Your task to perform on an android device: open the mobile data screen to see how much data has been used Image 0: 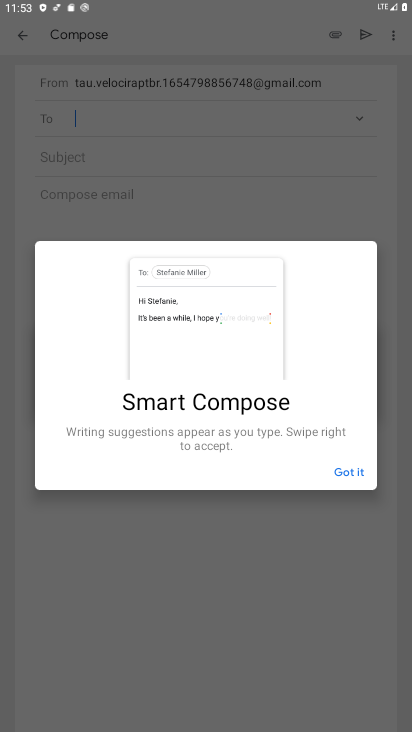
Step 0: press home button
Your task to perform on an android device: open the mobile data screen to see how much data has been used Image 1: 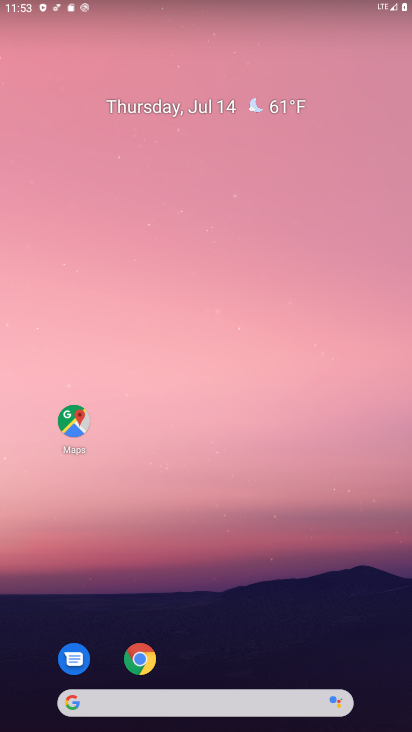
Step 1: drag from (202, 700) to (127, 103)
Your task to perform on an android device: open the mobile data screen to see how much data has been used Image 2: 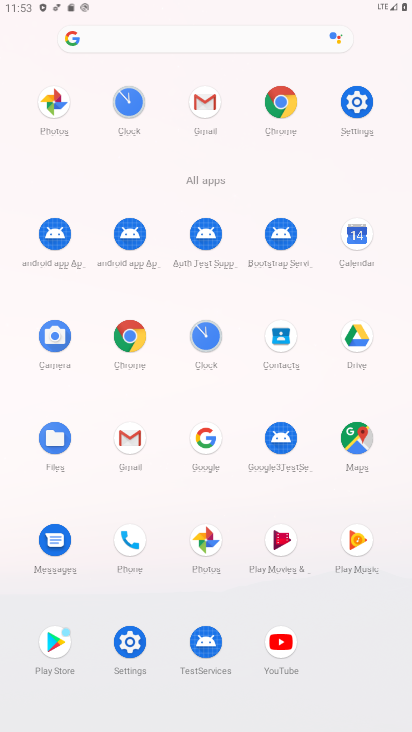
Step 2: click (359, 104)
Your task to perform on an android device: open the mobile data screen to see how much data has been used Image 3: 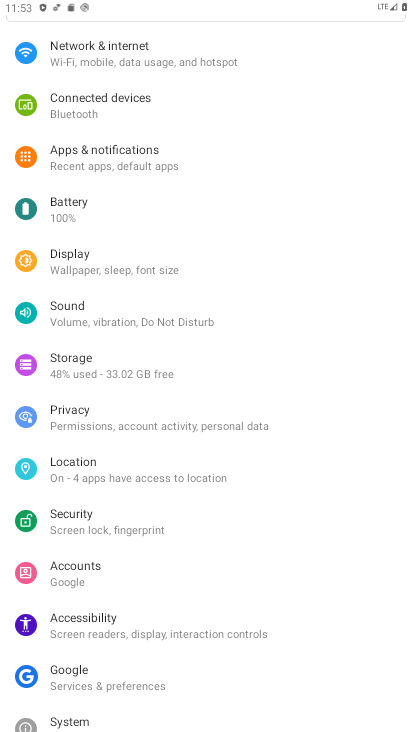
Step 3: click (145, 61)
Your task to perform on an android device: open the mobile data screen to see how much data has been used Image 4: 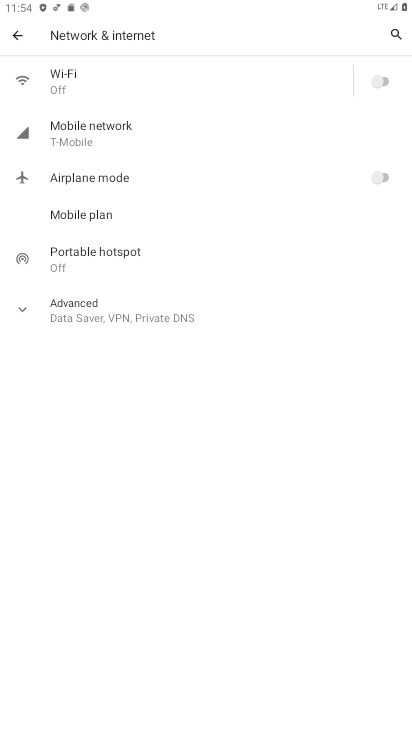
Step 4: click (117, 130)
Your task to perform on an android device: open the mobile data screen to see how much data has been used Image 5: 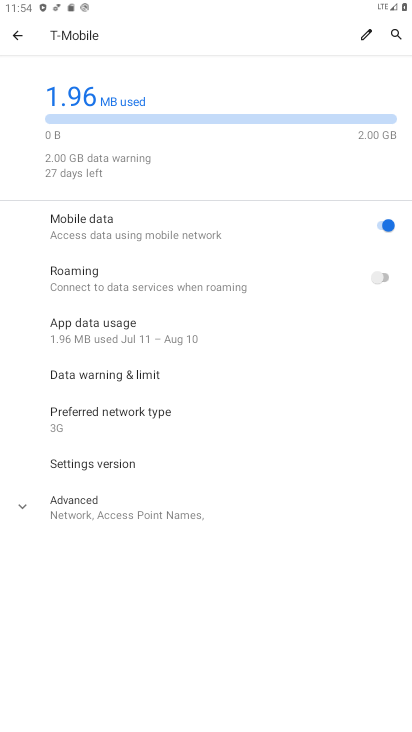
Step 5: task complete